Your task to perform on an android device: Go to settings Image 0: 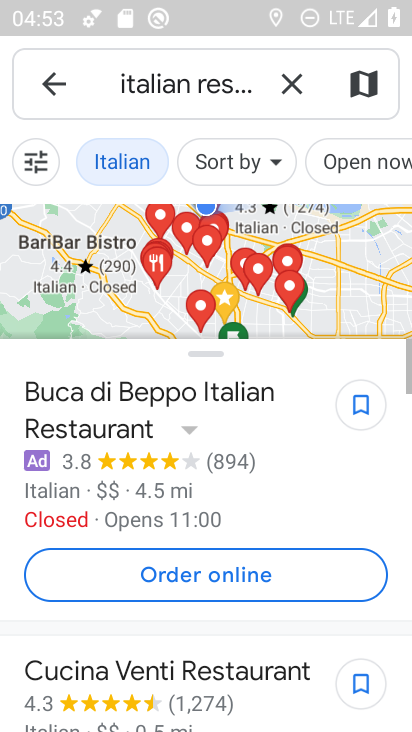
Step 0: press home button
Your task to perform on an android device: Go to settings Image 1: 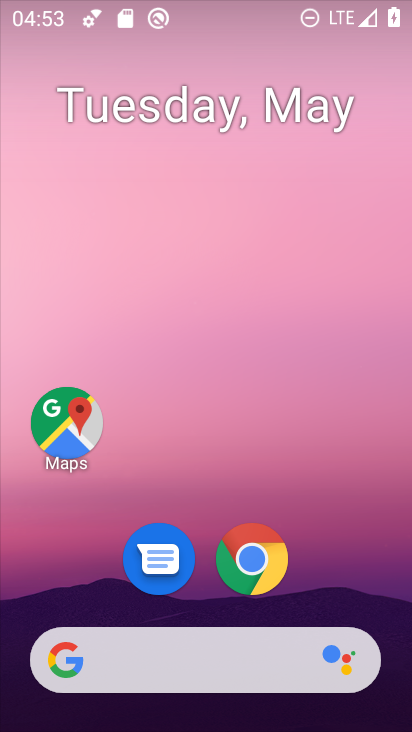
Step 1: drag from (227, 718) to (234, 119)
Your task to perform on an android device: Go to settings Image 2: 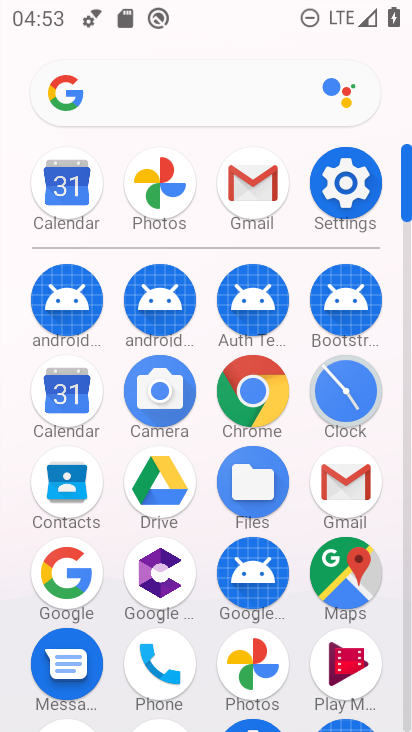
Step 2: click (341, 184)
Your task to perform on an android device: Go to settings Image 3: 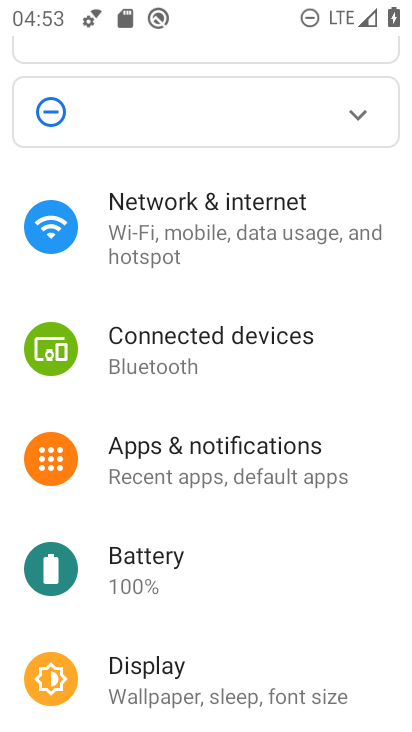
Step 3: task complete